Your task to perform on an android device: turn pop-ups off in chrome Image 0: 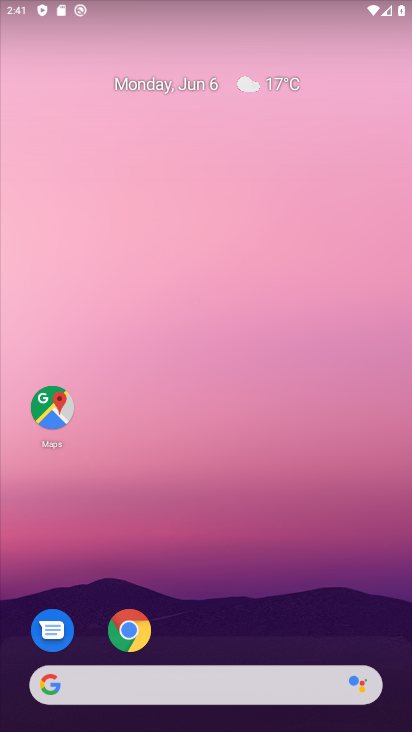
Step 0: click (142, 629)
Your task to perform on an android device: turn pop-ups off in chrome Image 1: 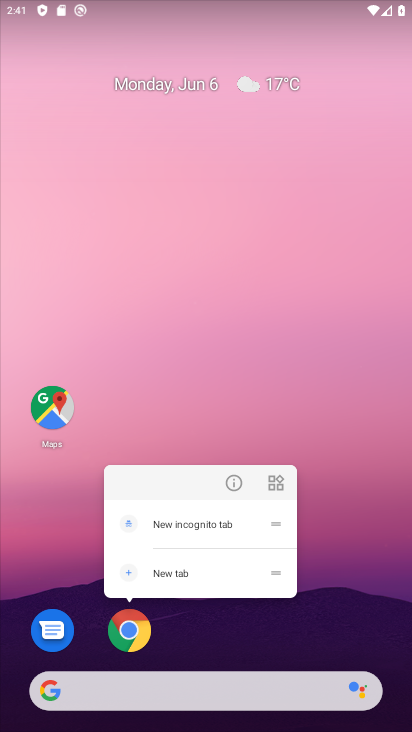
Step 1: click (128, 635)
Your task to perform on an android device: turn pop-ups off in chrome Image 2: 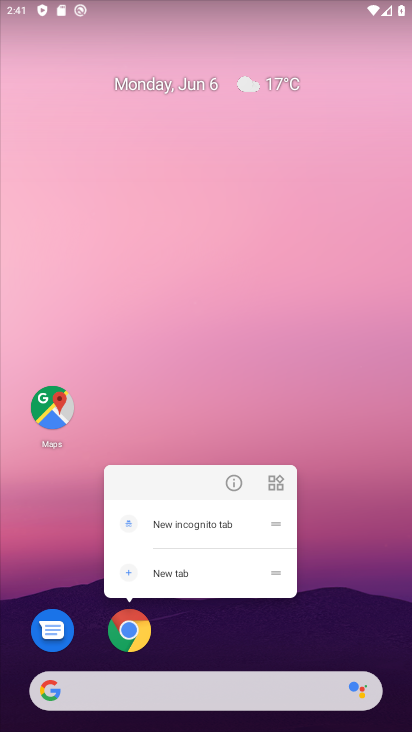
Step 2: click (139, 634)
Your task to perform on an android device: turn pop-ups off in chrome Image 3: 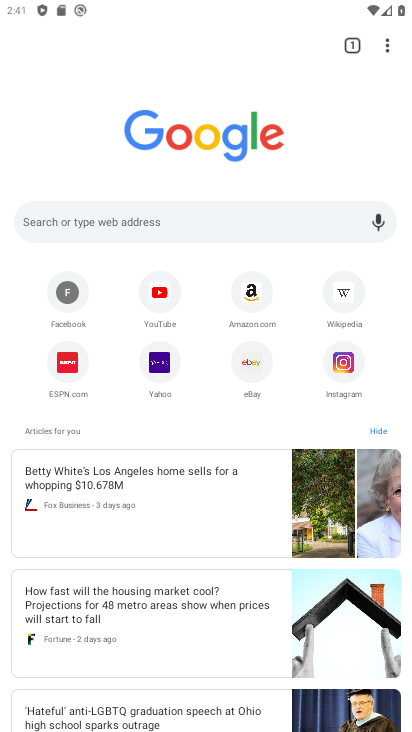
Step 3: drag from (383, 50) to (227, 378)
Your task to perform on an android device: turn pop-ups off in chrome Image 4: 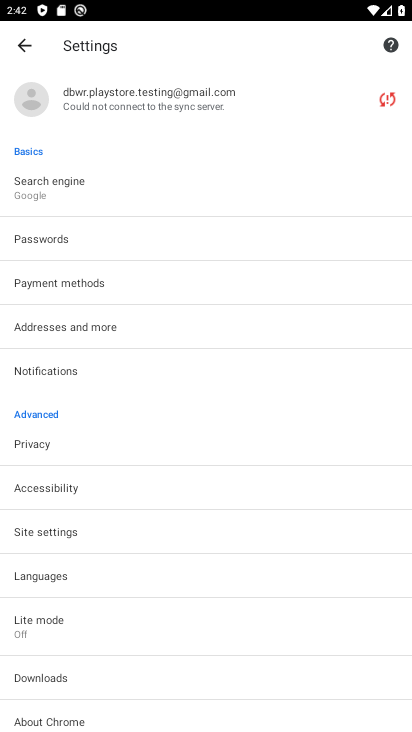
Step 4: click (69, 528)
Your task to perform on an android device: turn pop-ups off in chrome Image 5: 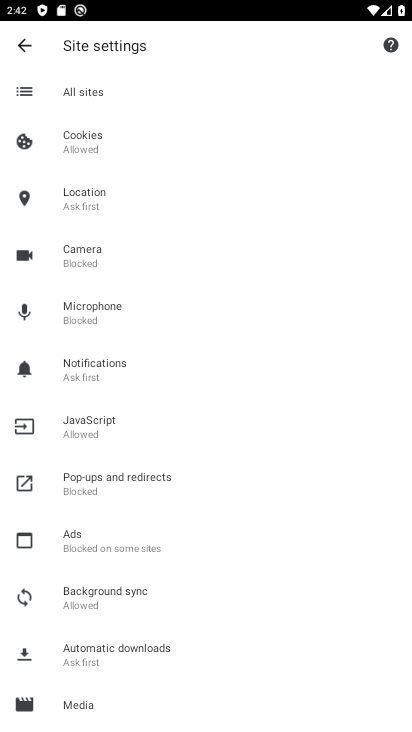
Step 5: click (117, 484)
Your task to perform on an android device: turn pop-ups off in chrome Image 6: 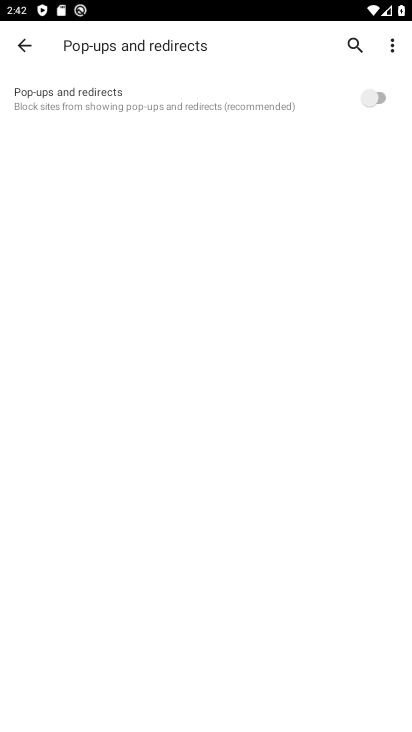
Step 6: task complete